Your task to perform on an android device: Clear the cart on walmart. Image 0: 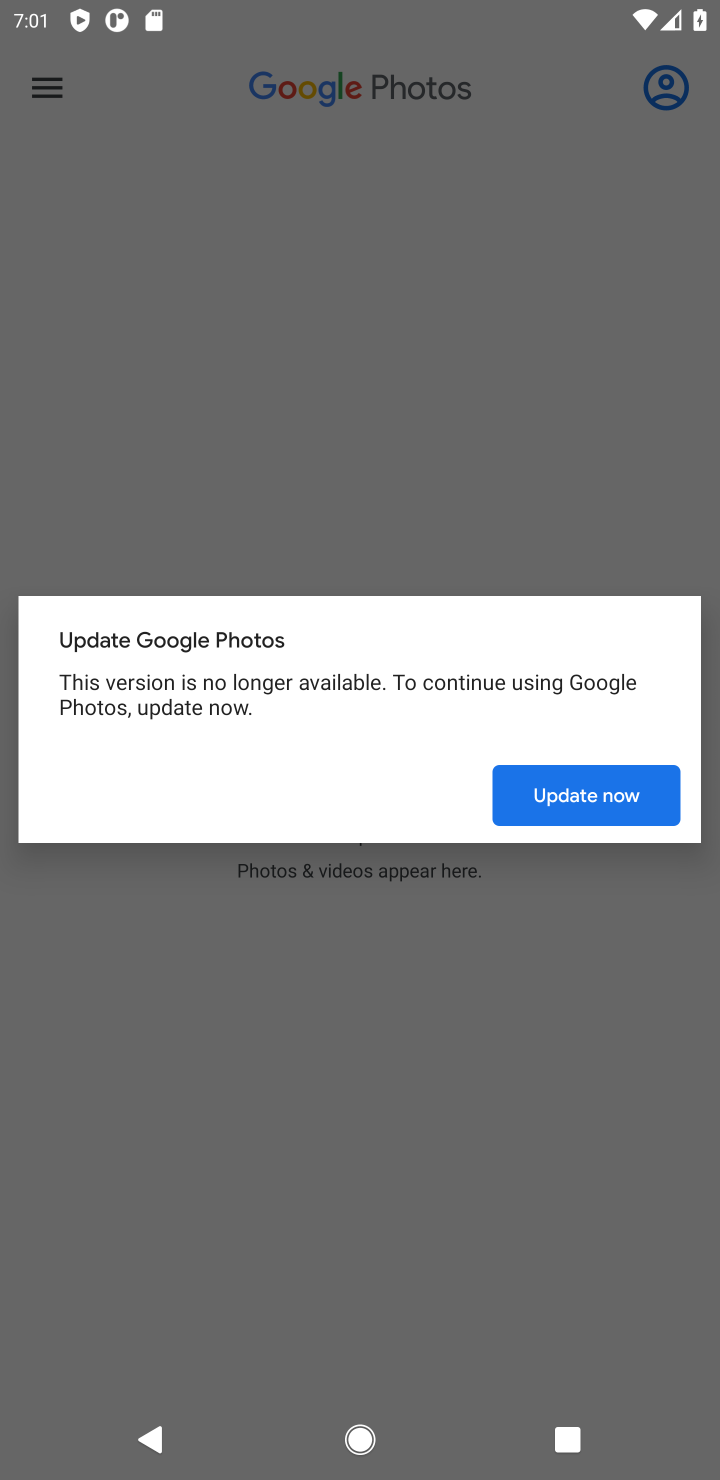
Step 0: task complete